Your task to perform on an android device: Open notification settings Image 0: 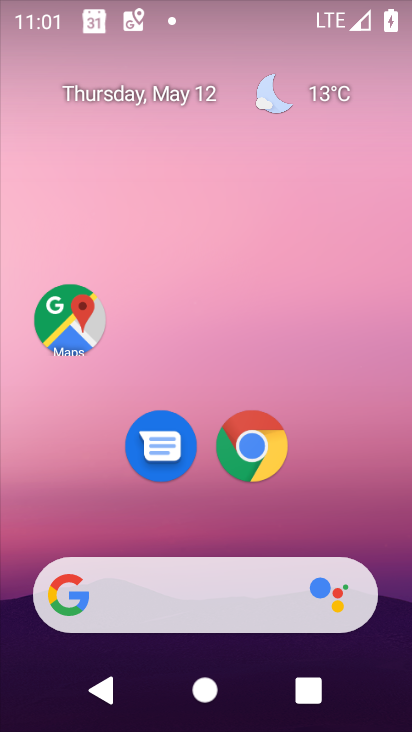
Step 0: drag from (231, 532) to (274, 26)
Your task to perform on an android device: Open notification settings Image 1: 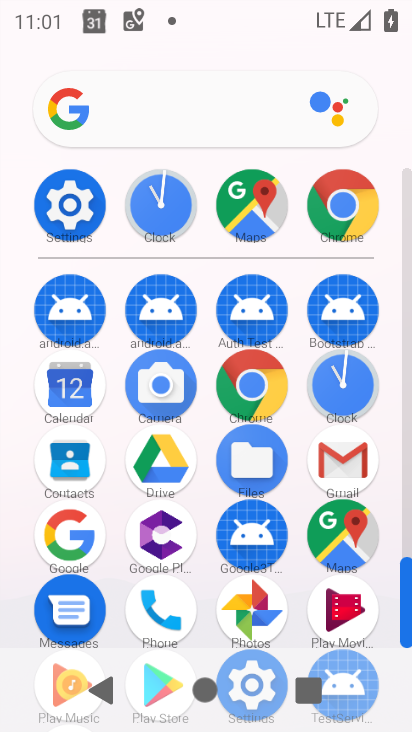
Step 1: click (62, 202)
Your task to perform on an android device: Open notification settings Image 2: 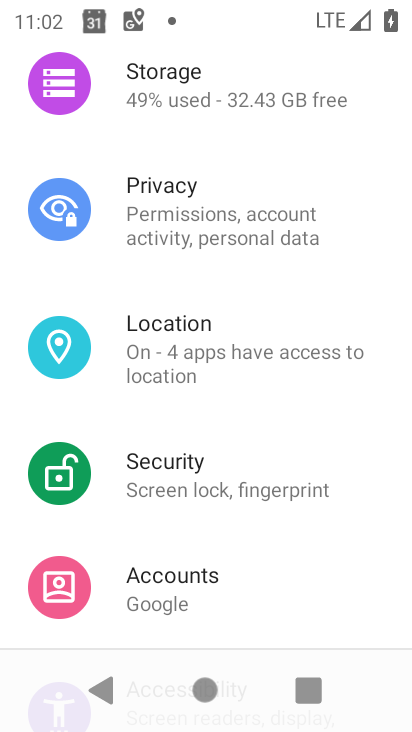
Step 2: drag from (207, 183) to (221, 583)
Your task to perform on an android device: Open notification settings Image 3: 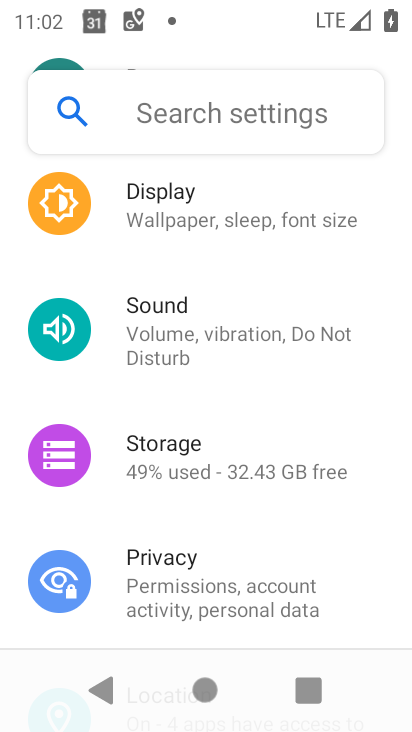
Step 3: drag from (257, 224) to (256, 709)
Your task to perform on an android device: Open notification settings Image 4: 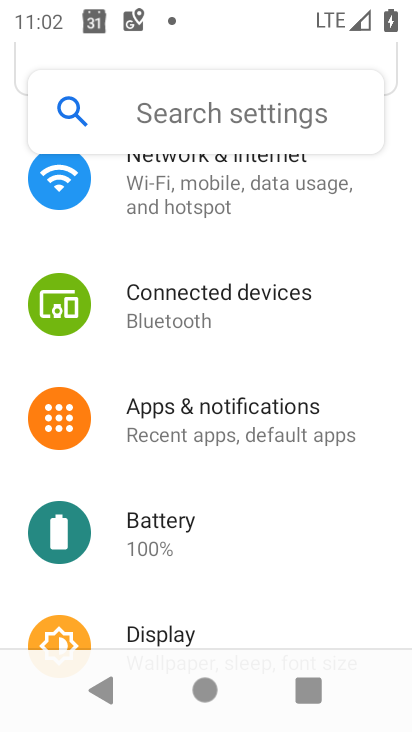
Step 4: click (211, 431)
Your task to perform on an android device: Open notification settings Image 5: 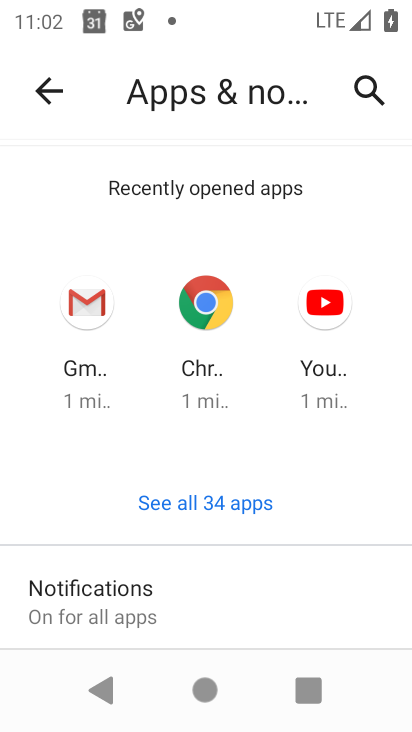
Step 5: drag from (273, 608) to (255, 279)
Your task to perform on an android device: Open notification settings Image 6: 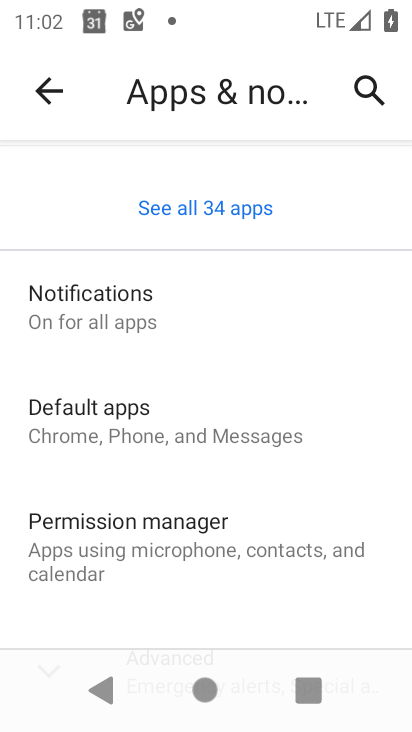
Step 6: click (153, 317)
Your task to perform on an android device: Open notification settings Image 7: 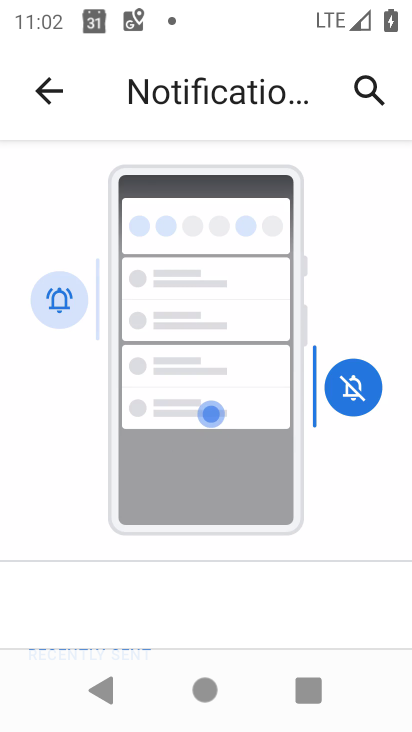
Step 7: task complete